Your task to perform on an android device: install app "Reddit" Image 0: 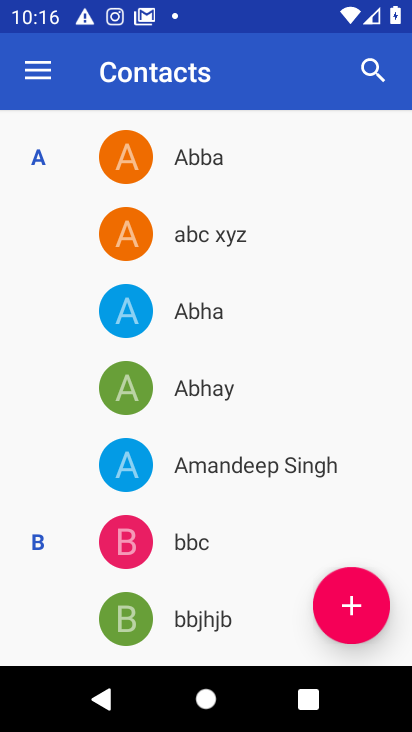
Step 0: press home button
Your task to perform on an android device: install app "Reddit" Image 1: 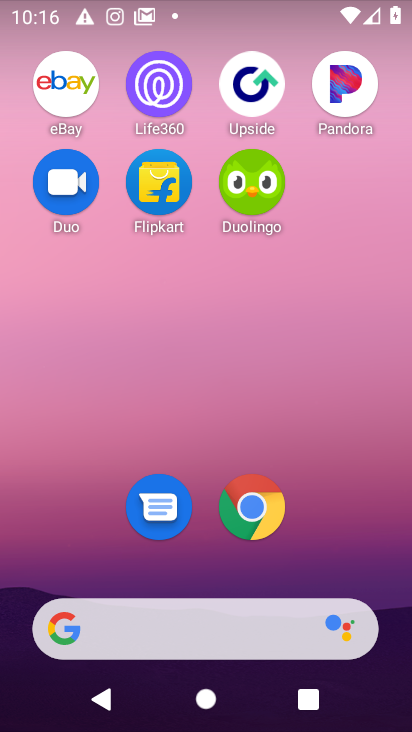
Step 1: drag from (178, 318) to (206, 125)
Your task to perform on an android device: install app "Reddit" Image 2: 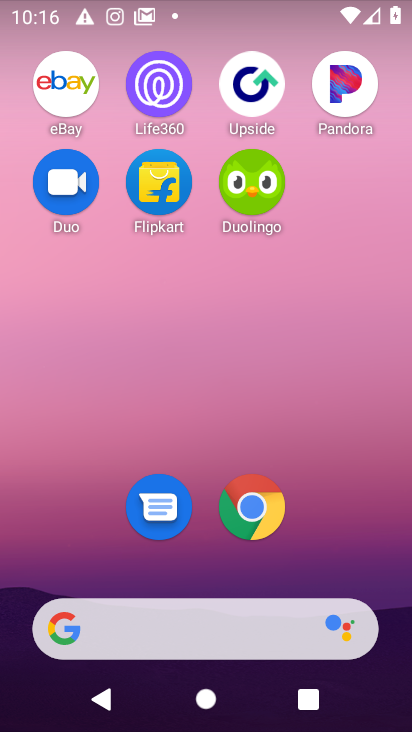
Step 2: drag from (184, 553) to (231, 41)
Your task to perform on an android device: install app "Reddit" Image 3: 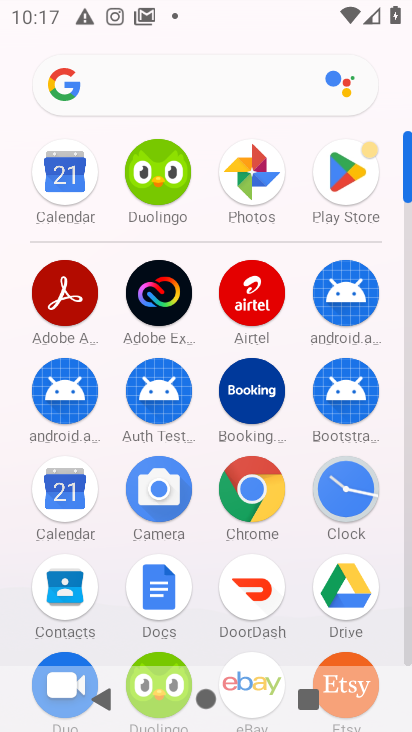
Step 3: click (349, 183)
Your task to perform on an android device: install app "Reddit" Image 4: 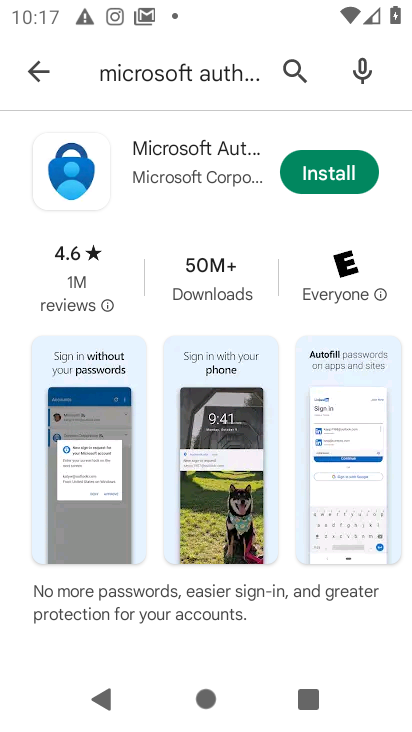
Step 4: click (33, 74)
Your task to perform on an android device: install app "Reddit" Image 5: 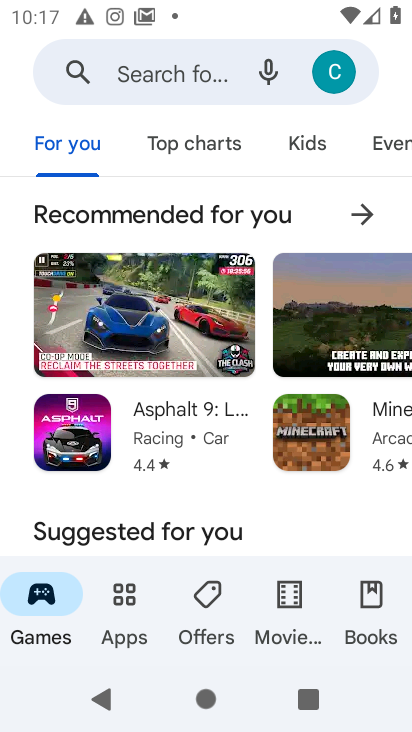
Step 5: click (154, 74)
Your task to perform on an android device: install app "Reddit" Image 6: 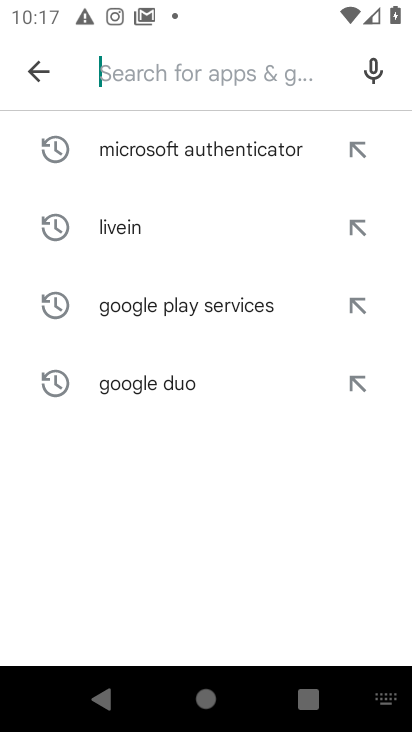
Step 6: type "Reddit"
Your task to perform on an android device: install app "Reddit" Image 7: 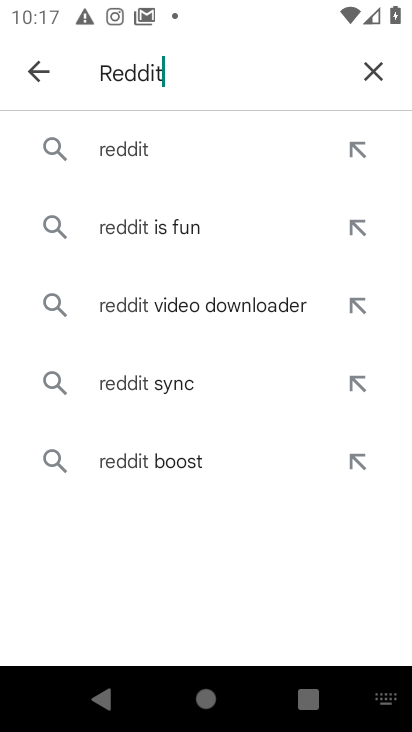
Step 7: click (134, 148)
Your task to perform on an android device: install app "Reddit" Image 8: 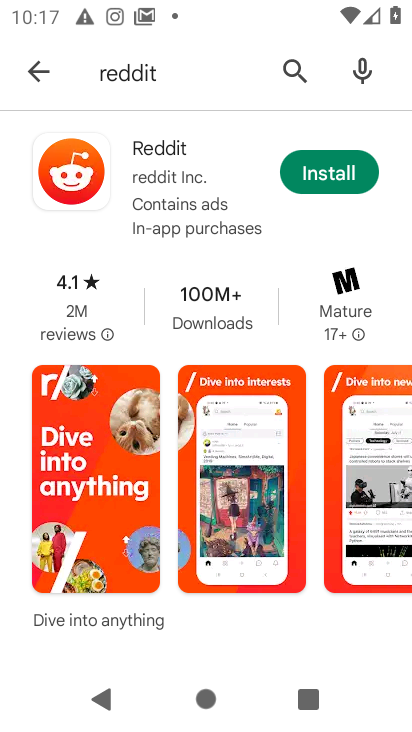
Step 8: click (322, 177)
Your task to perform on an android device: install app "Reddit" Image 9: 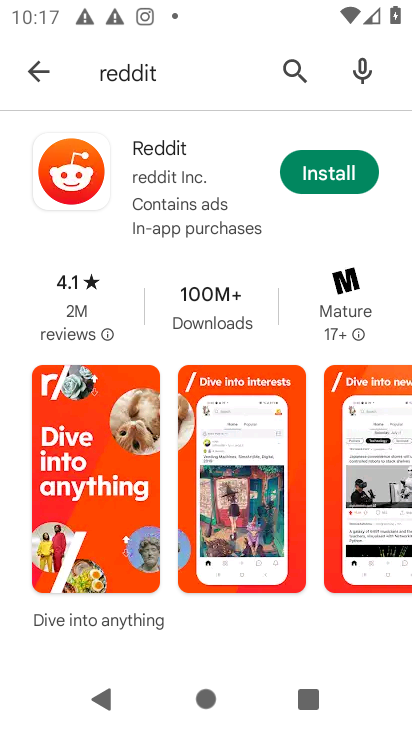
Step 9: task complete